Your task to perform on an android device: Open Wikipedia Image 0: 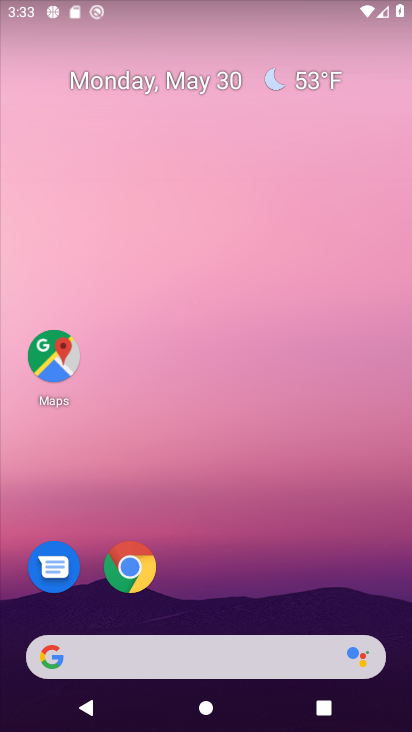
Step 0: drag from (303, 668) to (304, 0)
Your task to perform on an android device: Open Wikipedia Image 1: 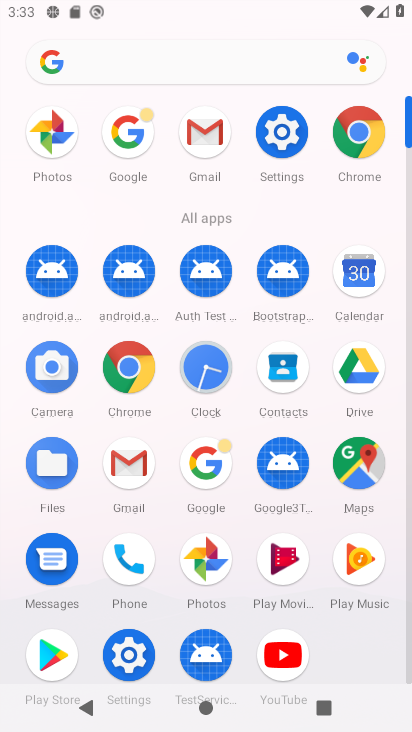
Step 1: click (127, 370)
Your task to perform on an android device: Open Wikipedia Image 2: 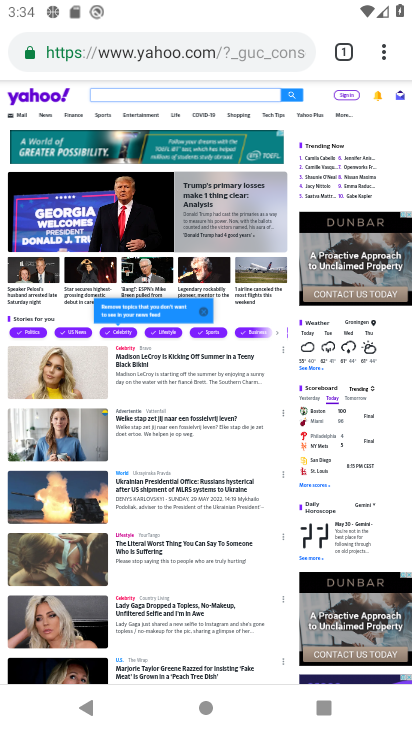
Step 2: click (98, 55)
Your task to perform on an android device: Open Wikipedia Image 3: 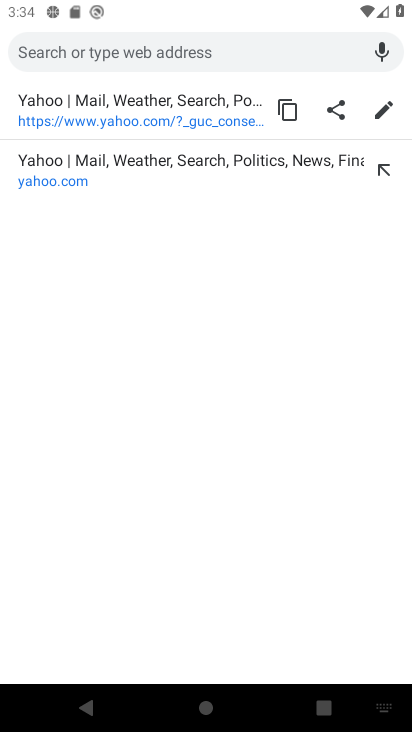
Step 3: type "wikipedia"
Your task to perform on an android device: Open Wikipedia Image 4: 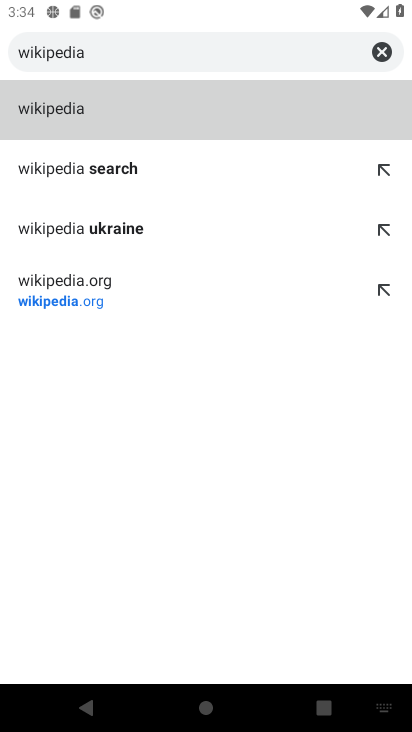
Step 4: click (354, 116)
Your task to perform on an android device: Open Wikipedia Image 5: 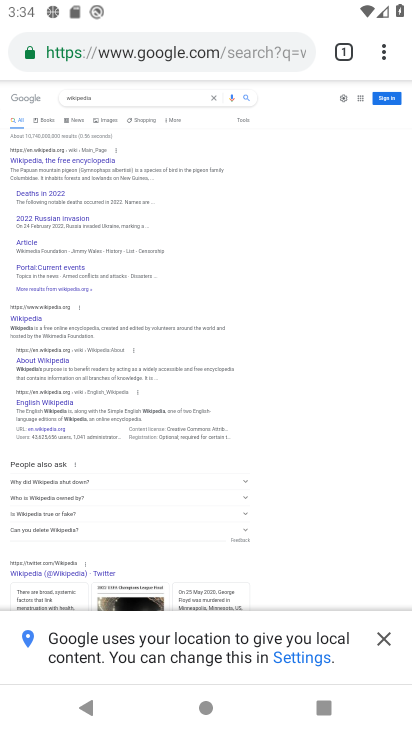
Step 5: task complete